Your task to perform on an android device: Open Google Chrome and open the bookmarks view Image 0: 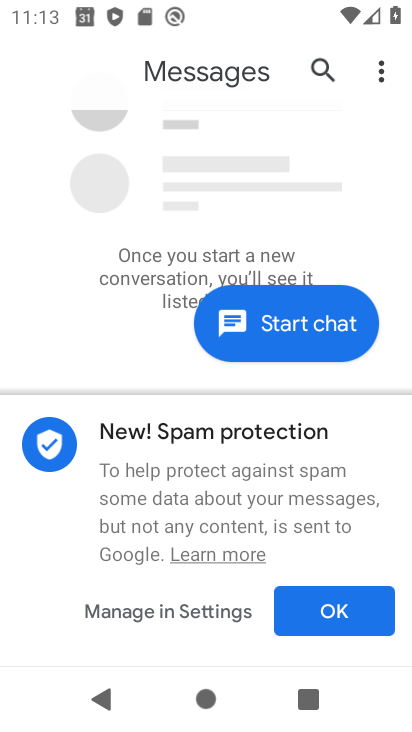
Step 0: press home button
Your task to perform on an android device: Open Google Chrome and open the bookmarks view Image 1: 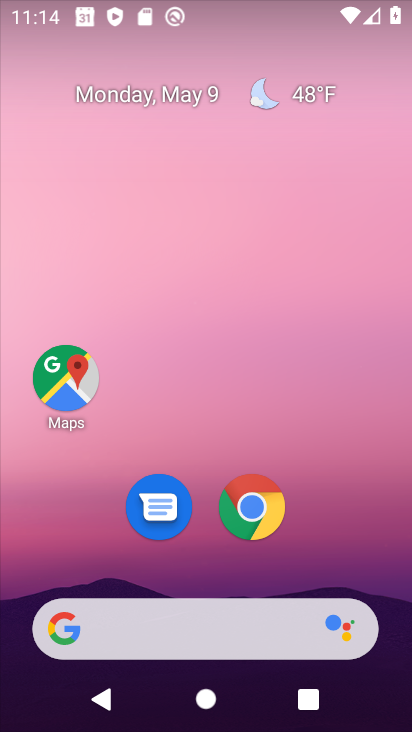
Step 1: drag from (325, 543) to (226, 109)
Your task to perform on an android device: Open Google Chrome and open the bookmarks view Image 2: 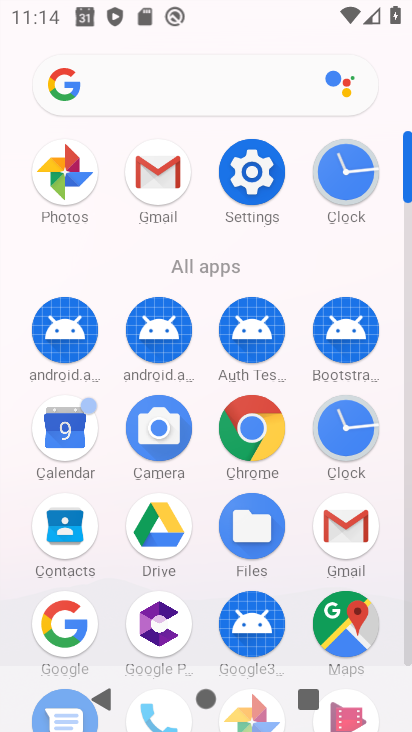
Step 2: click (260, 437)
Your task to perform on an android device: Open Google Chrome and open the bookmarks view Image 3: 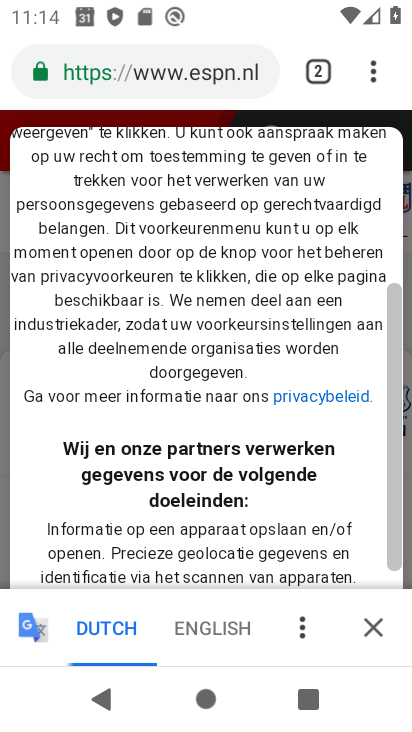
Step 3: press home button
Your task to perform on an android device: Open Google Chrome and open the bookmarks view Image 4: 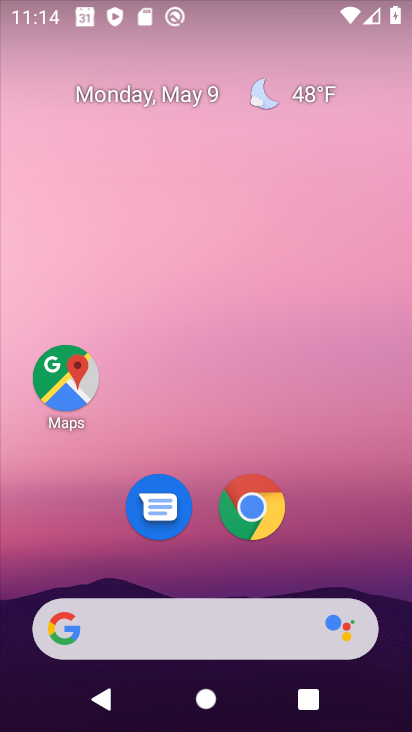
Step 4: click (258, 503)
Your task to perform on an android device: Open Google Chrome and open the bookmarks view Image 5: 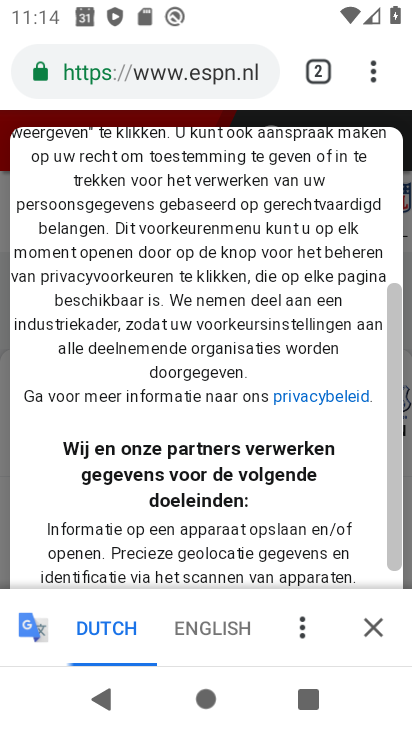
Step 5: click (379, 80)
Your task to perform on an android device: Open Google Chrome and open the bookmarks view Image 6: 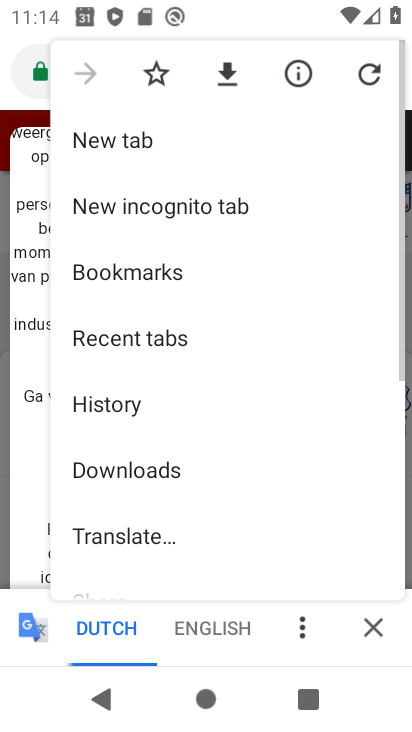
Step 6: click (195, 275)
Your task to perform on an android device: Open Google Chrome and open the bookmarks view Image 7: 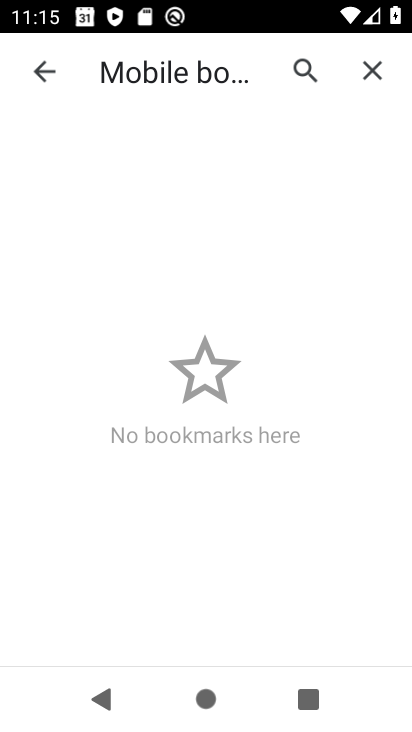
Step 7: task complete